Your task to perform on an android device: Open Yahoo.com Image 0: 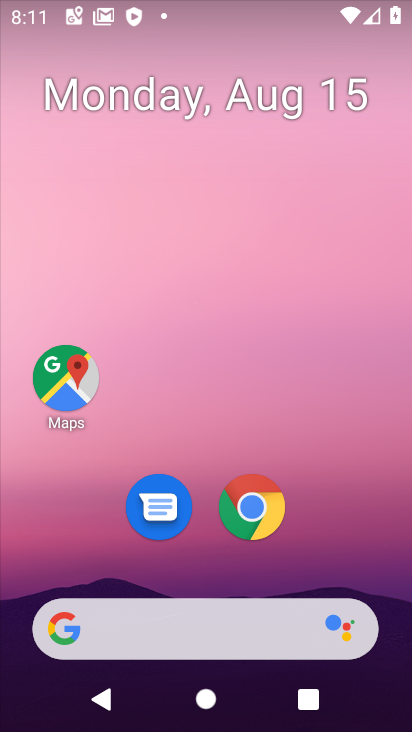
Step 0: click (251, 492)
Your task to perform on an android device: Open Yahoo.com Image 1: 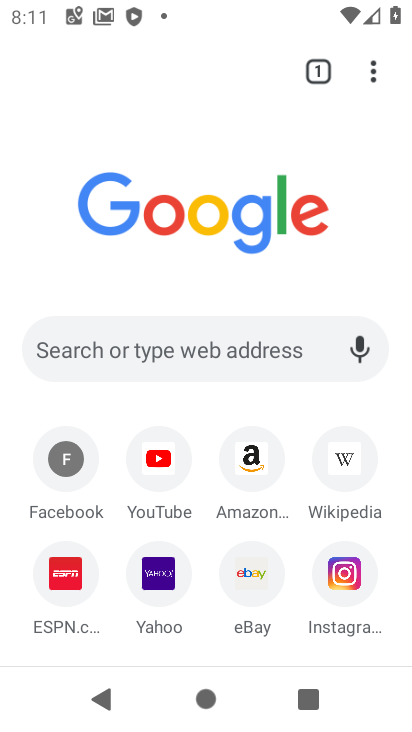
Step 1: click (144, 569)
Your task to perform on an android device: Open Yahoo.com Image 2: 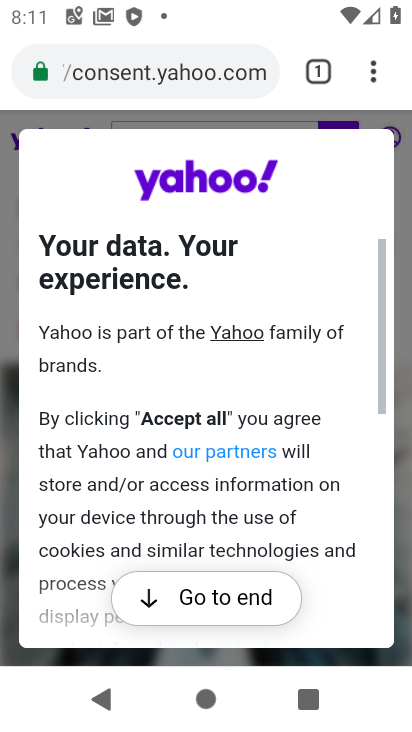
Step 2: task complete